Your task to perform on an android device: Open location settings Image 0: 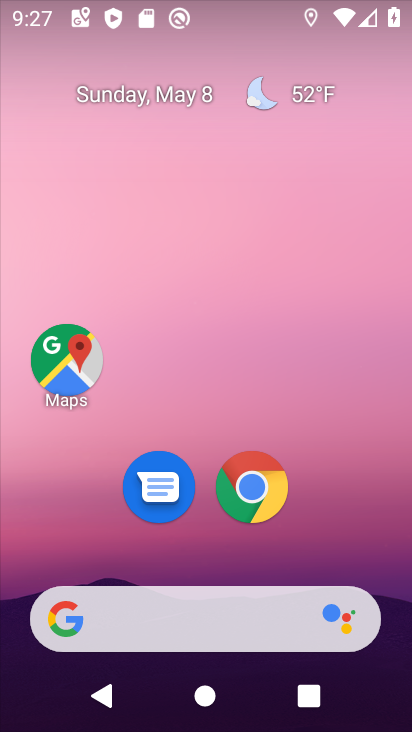
Step 0: drag from (393, 626) to (299, 51)
Your task to perform on an android device: Open location settings Image 1: 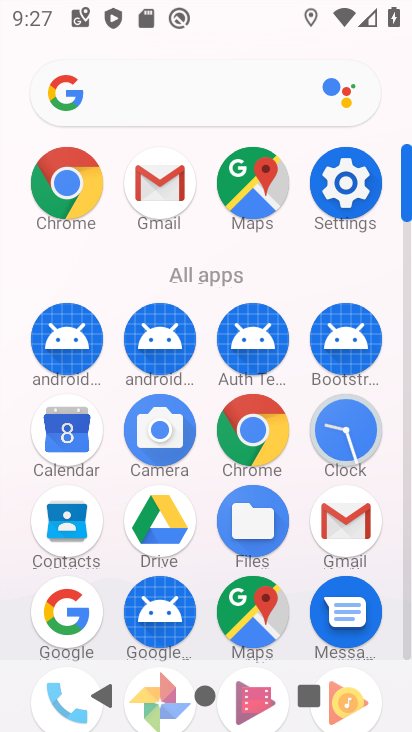
Step 1: click (332, 176)
Your task to perform on an android device: Open location settings Image 2: 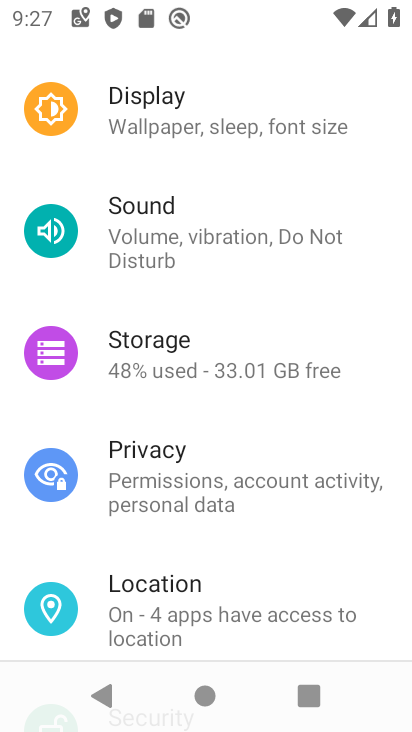
Step 2: click (157, 600)
Your task to perform on an android device: Open location settings Image 3: 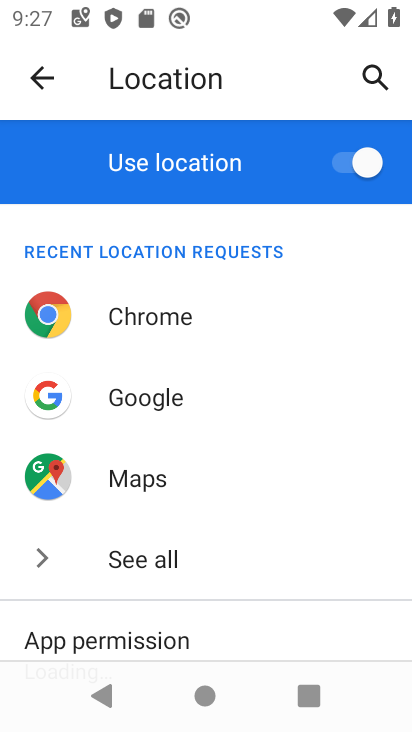
Step 3: task complete